Your task to perform on an android device: What's the weather? Image 0: 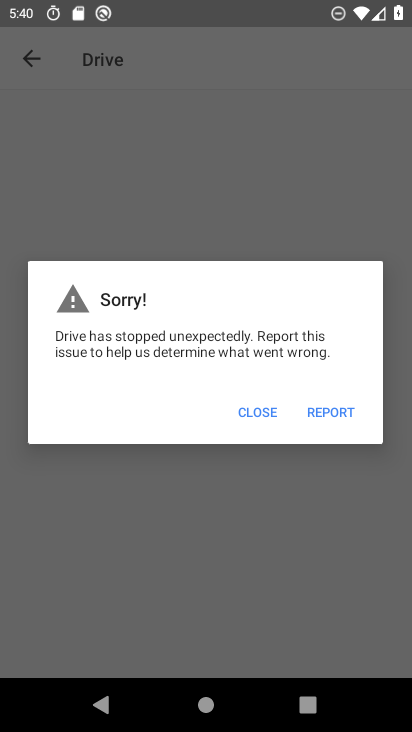
Step 0: press home button
Your task to perform on an android device: What's the weather? Image 1: 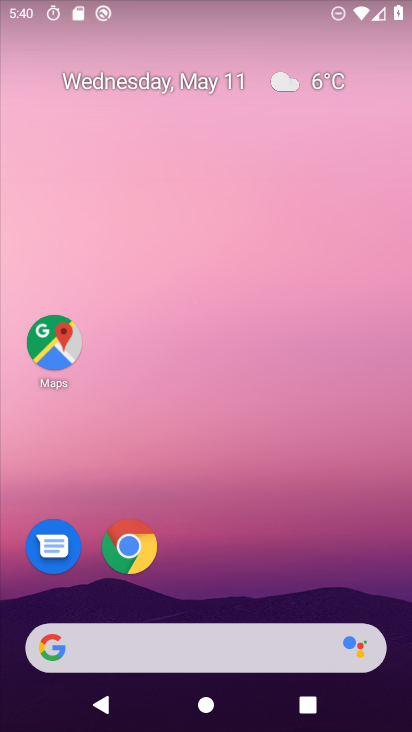
Step 1: drag from (156, 617) to (148, 203)
Your task to perform on an android device: What's the weather? Image 2: 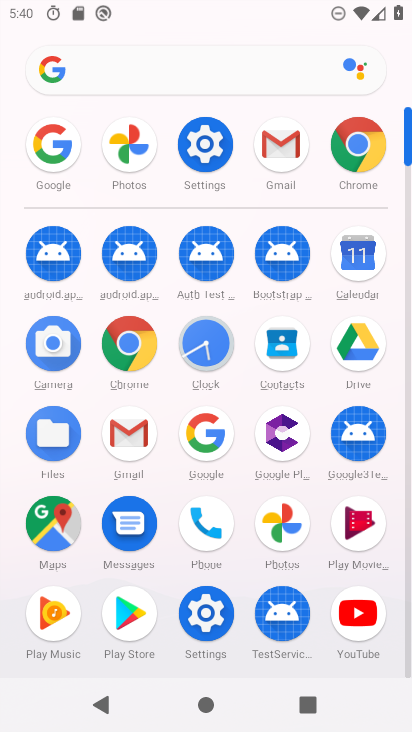
Step 2: click (205, 439)
Your task to perform on an android device: What's the weather? Image 3: 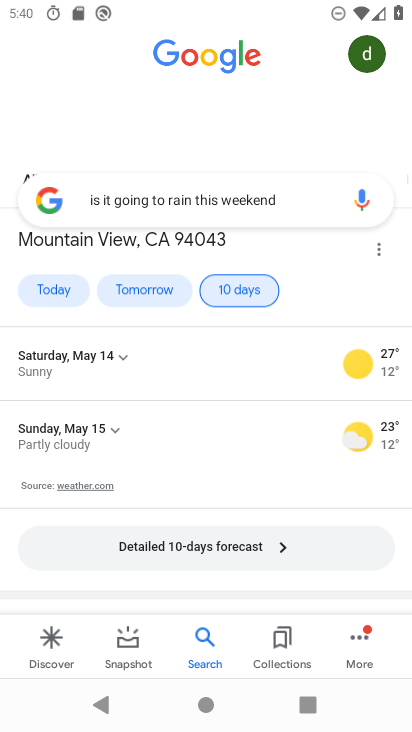
Step 3: click (21, 286)
Your task to perform on an android device: What's the weather? Image 4: 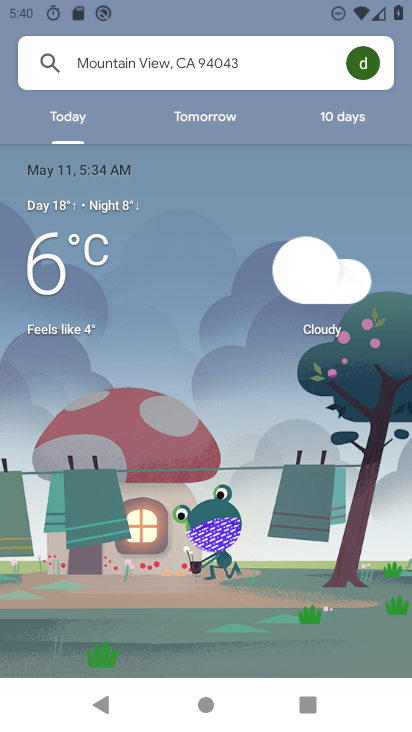
Step 4: task complete